Your task to perform on an android device: Open Maps and search for coffee Image 0: 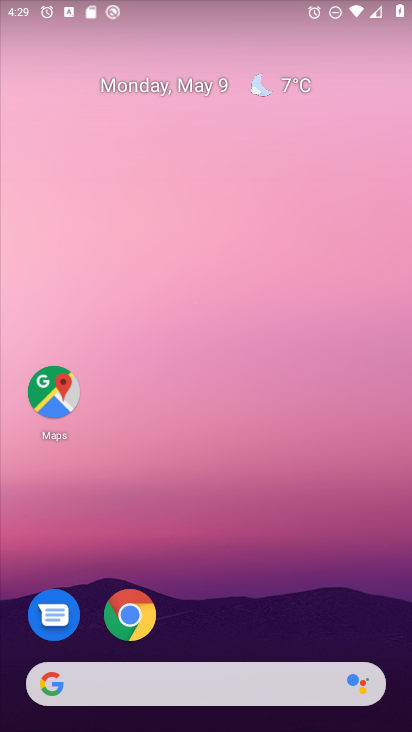
Step 0: click (51, 389)
Your task to perform on an android device: Open Maps and search for coffee Image 1: 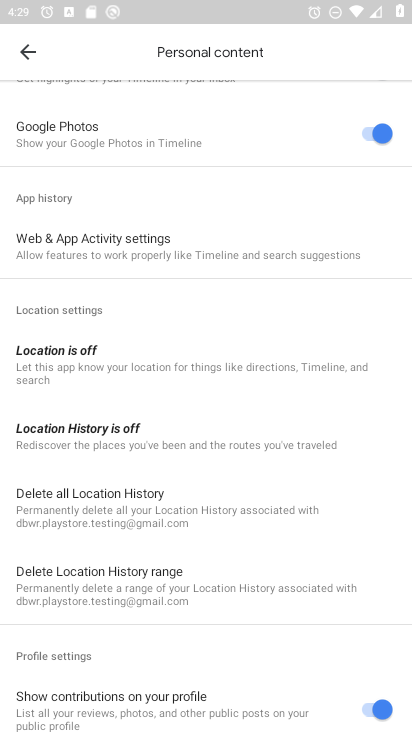
Step 1: press back button
Your task to perform on an android device: Open Maps and search for coffee Image 2: 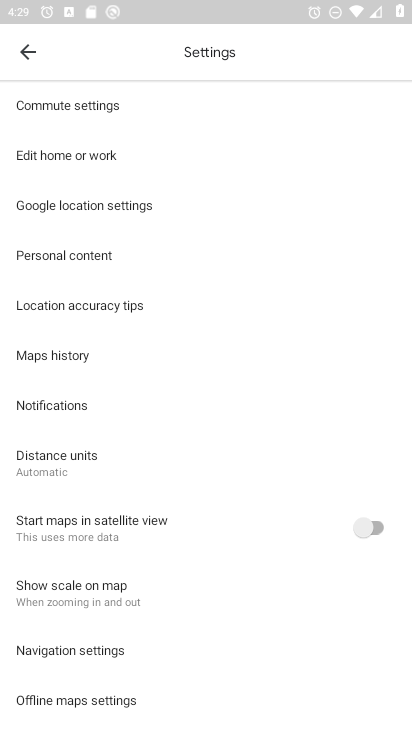
Step 2: press back button
Your task to perform on an android device: Open Maps and search for coffee Image 3: 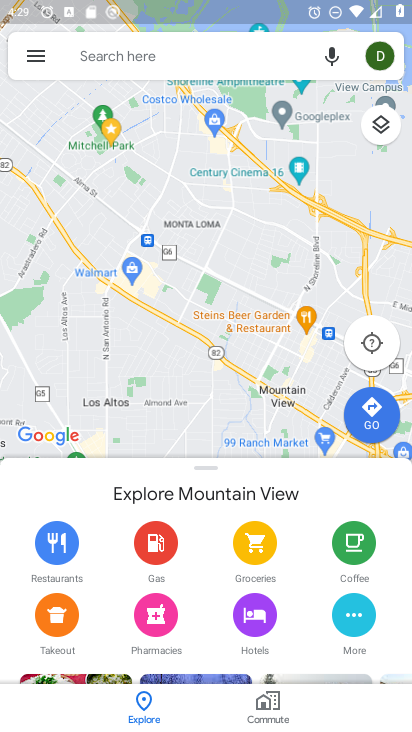
Step 3: click (106, 54)
Your task to perform on an android device: Open Maps and search for coffee Image 4: 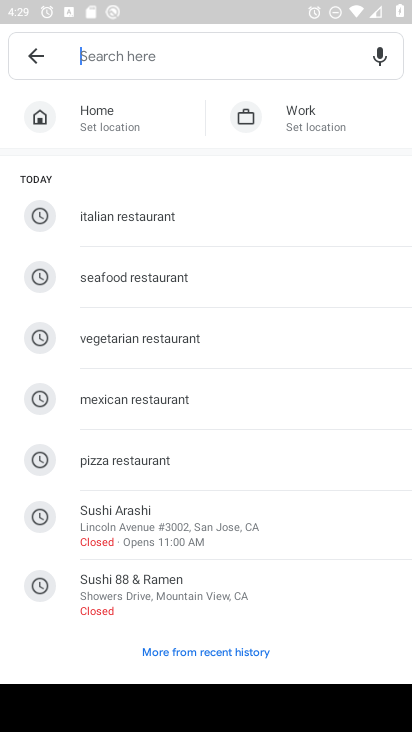
Step 4: type "coffee"
Your task to perform on an android device: Open Maps and search for coffee Image 5: 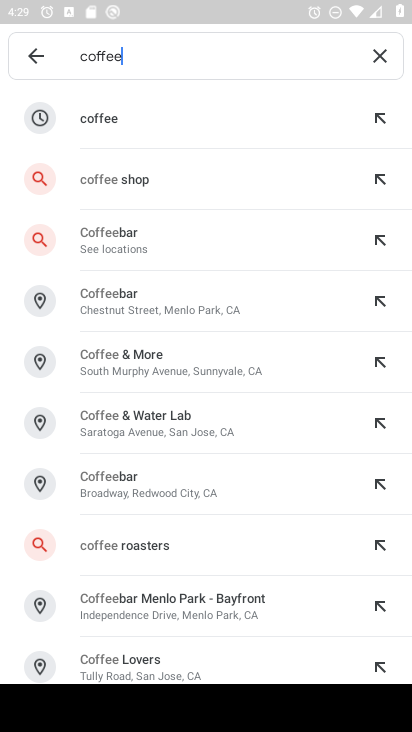
Step 5: click (94, 113)
Your task to perform on an android device: Open Maps and search for coffee Image 6: 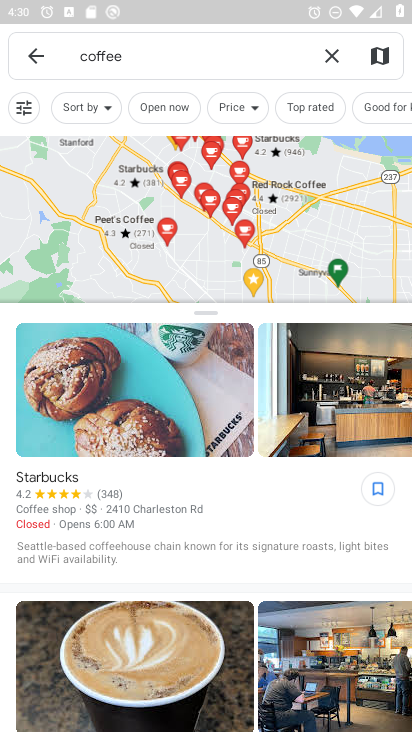
Step 6: task complete